Your task to perform on an android device: turn on notifications settings in the gmail app Image 0: 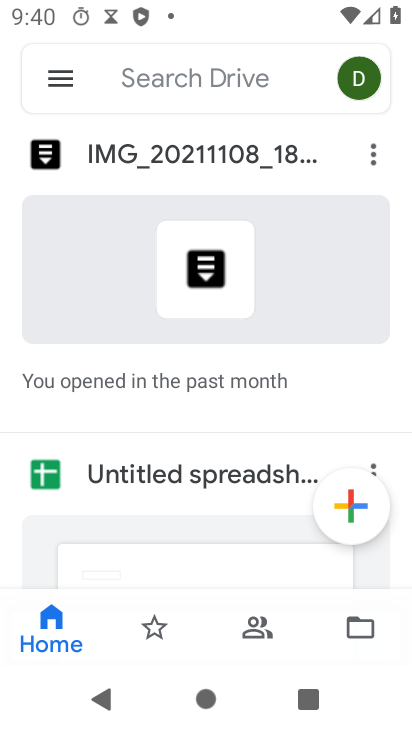
Step 0: press back button
Your task to perform on an android device: turn on notifications settings in the gmail app Image 1: 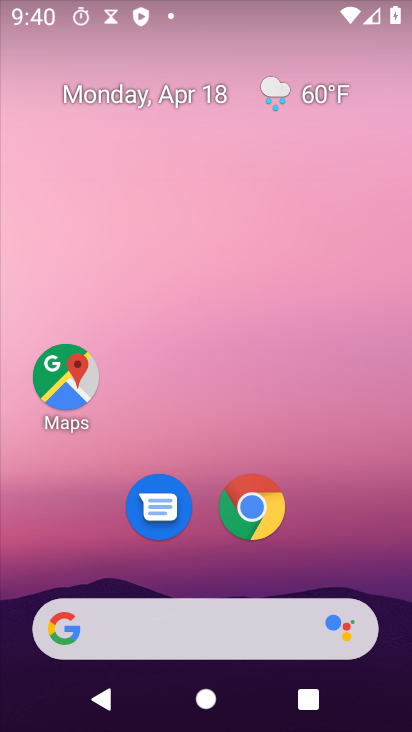
Step 1: drag from (330, 567) to (369, 146)
Your task to perform on an android device: turn on notifications settings in the gmail app Image 2: 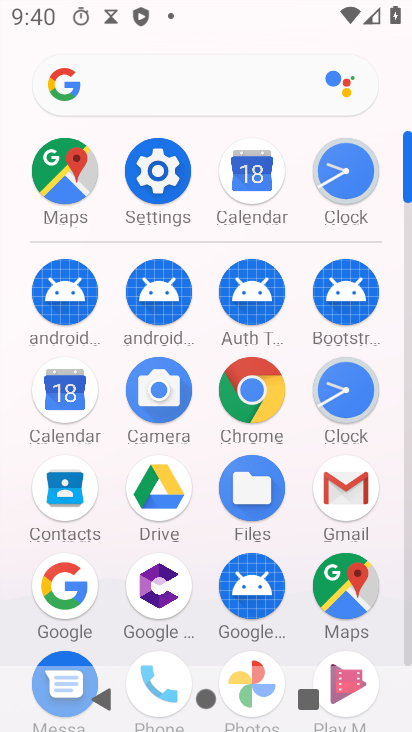
Step 2: click (349, 514)
Your task to perform on an android device: turn on notifications settings in the gmail app Image 3: 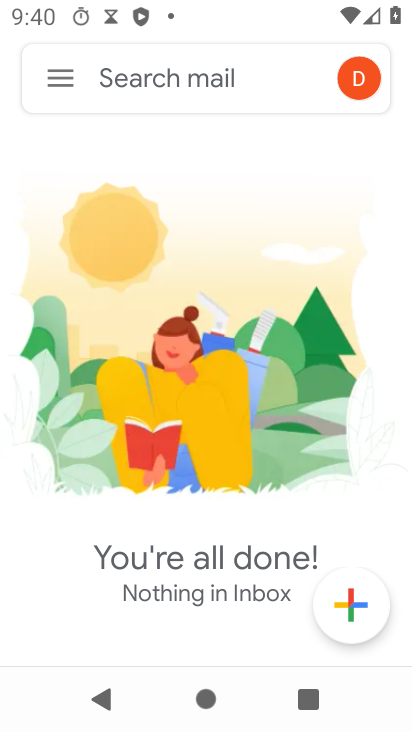
Step 3: click (60, 76)
Your task to perform on an android device: turn on notifications settings in the gmail app Image 4: 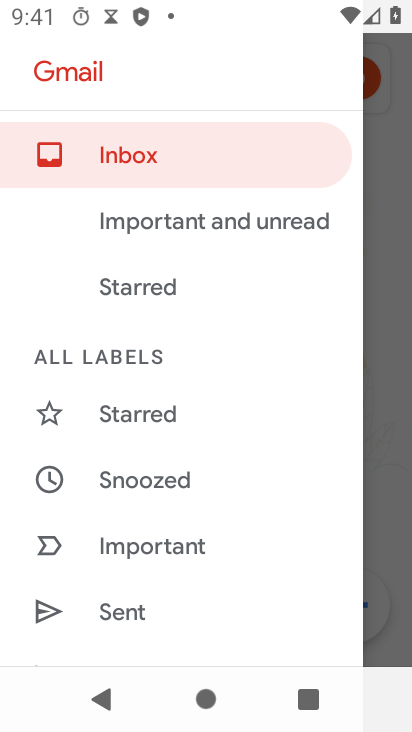
Step 4: drag from (155, 504) to (154, 399)
Your task to perform on an android device: turn on notifications settings in the gmail app Image 5: 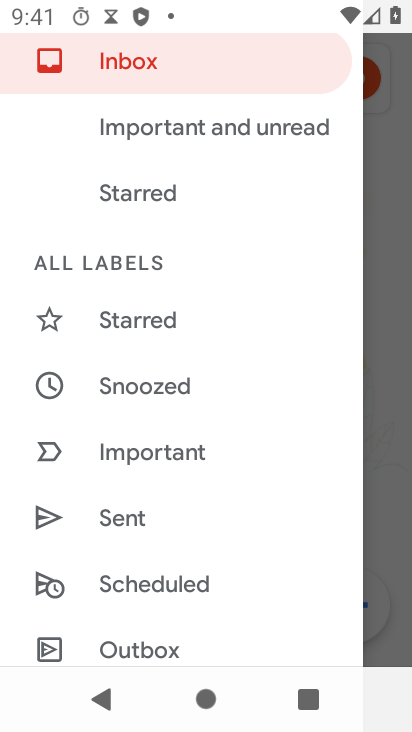
Step 5: drag from (155, 516) to (181, 382)
Your task to perform on an android device: turn on notifications settings in the gmail app Image 6: 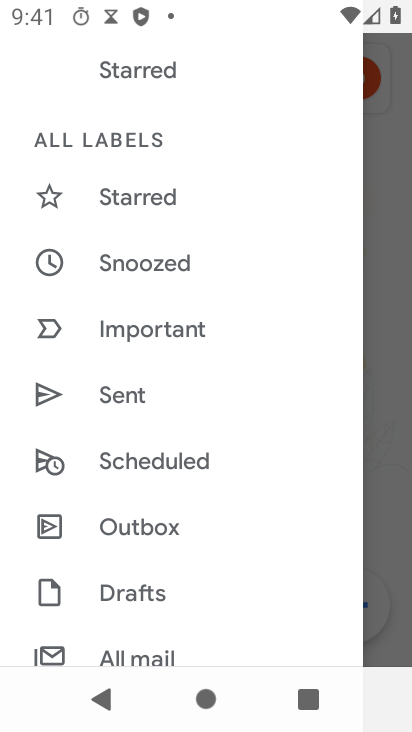
Step 6: drag from (201, 513) to (206, 430)
Your task to perform on an android device: turn on notifications settings in the gmail app Image 7: 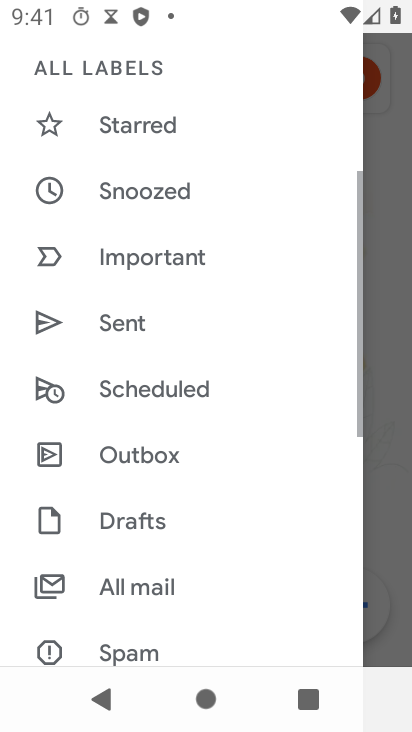
Step 7: drag from (178, 543) to (195, 432)
Your task to perform on an android device: turn on notifications settings in the gmail app Image 8: 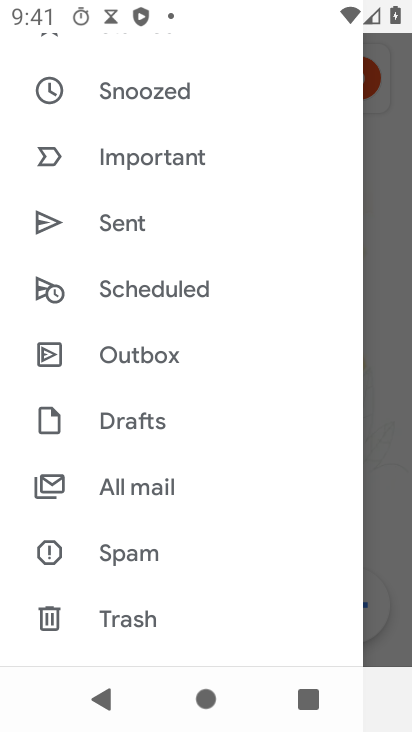
Step 8: drag from (196, 565) to (207, 465)
Your task to perform on an android device: turn on notifications settings in the gmail app Image 9: 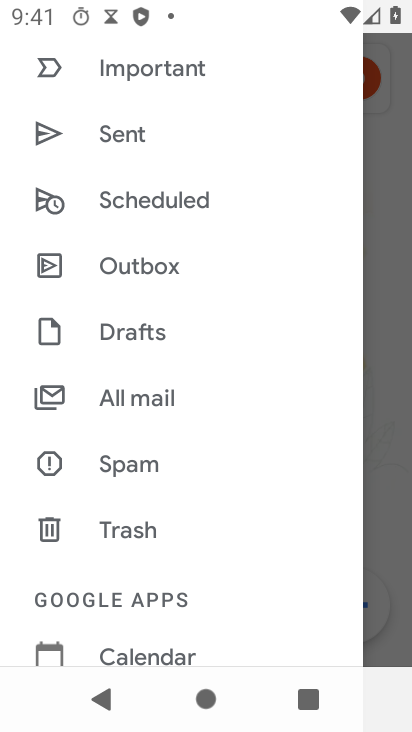
Step 9: drag from (204, 582) to (248, 480)
Your task to perform on an android device: turn on notifications settings in the gmail app Image 10: 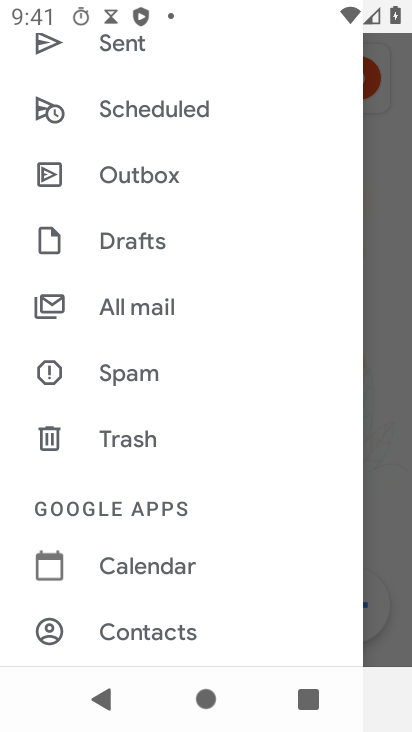
Step 10: drag from (234, 591) to (249, 497)
Your task to perform on an android device: turn on notifications settings in the gmail app Image 11: 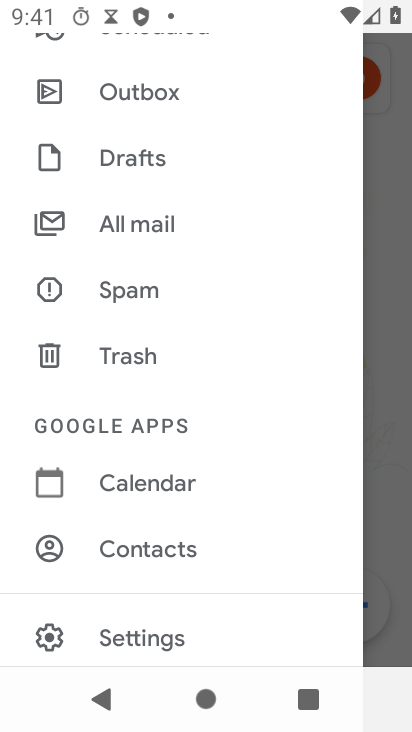
Step 11: click (211, 627)
Your task to perform on an android device: turn on notifications settings in the gmail app Image 12: 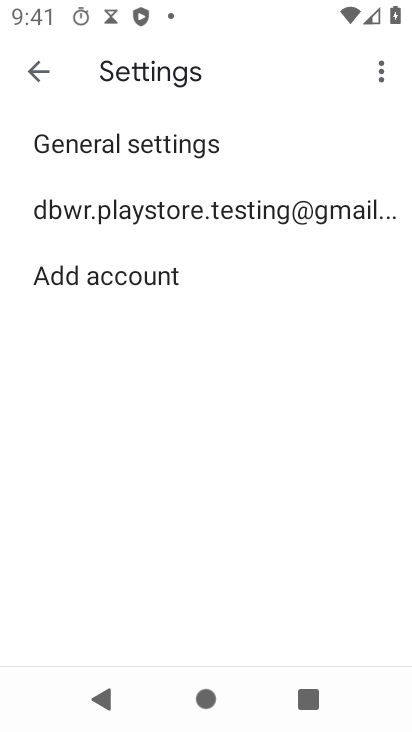
Step 12: click (152, 207)
Your task to perform on an android device: turn on notifications settings in the gmail app Image 13: 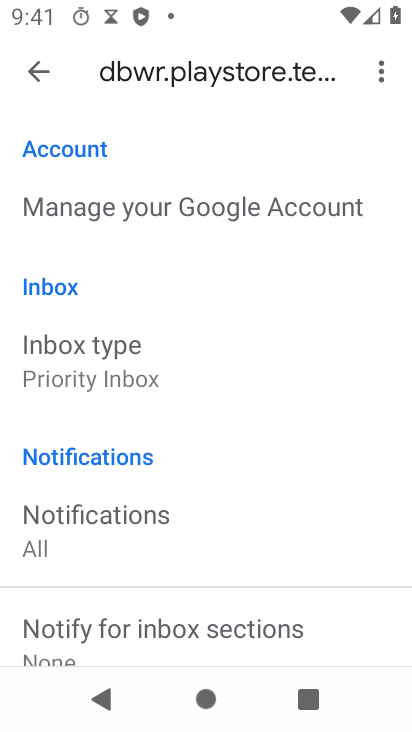
Step 13: drag from (166, 577) to (205, 482)
Your task to perform on an android device: turn on notifications settings in the gmail app Image 14: 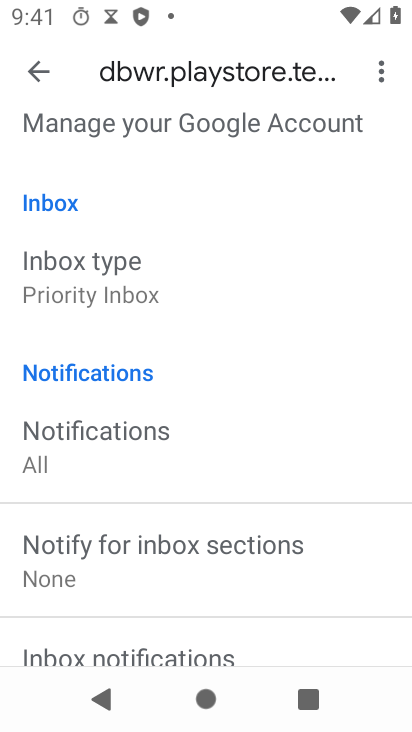
Step 14: drag from (223, 587) to (235, 475)
Your task to perform on an android device: turn on notifications settings in the gmail app Image 15: 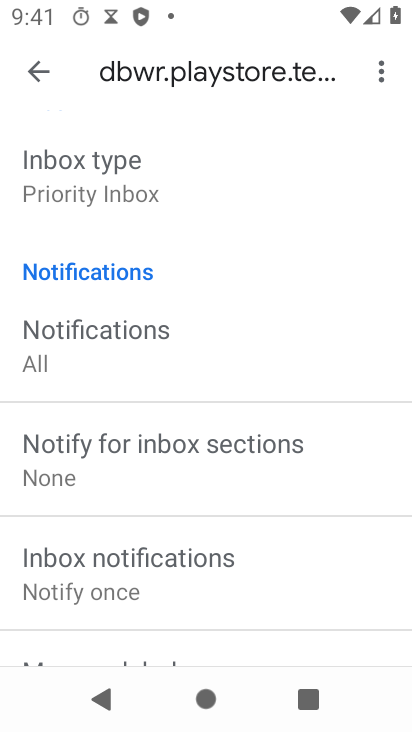
Step 15: drag from (231, 578) to (237, 467)
Your task to perform on an android device: turn on notifications settings in the gmail app Image 16: 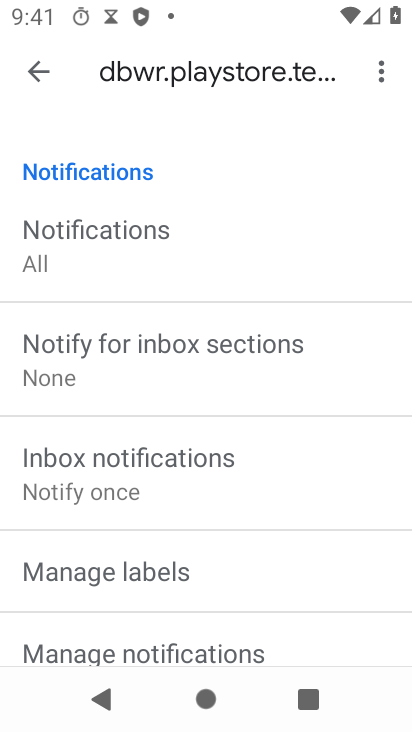
Step 16: click (217, 647)
Your task to perform on an android device: turn on notifications settings in the gmail app Image 17: 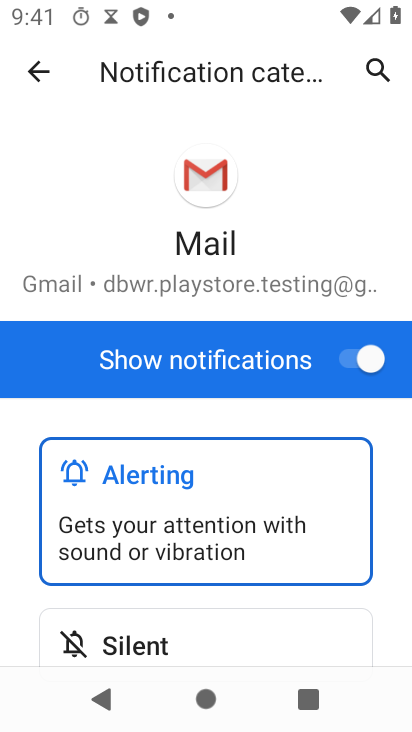
Step 17: task complete